Your task to perform on an android device: change the clock display to analog Image 0: 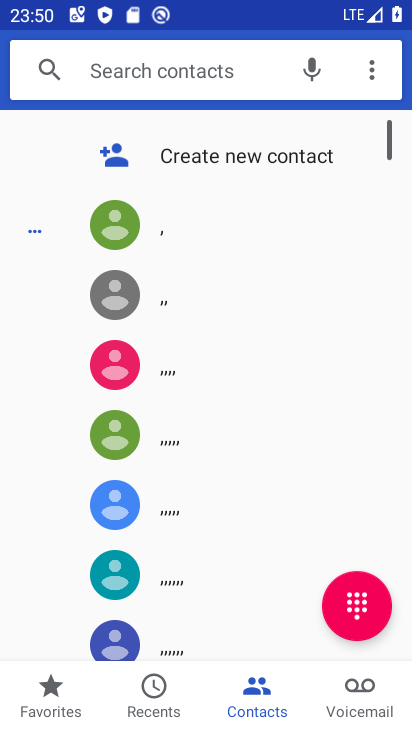
Step 0: press home button
Your task to perform on an android device: change the clock display to analog Image 1: 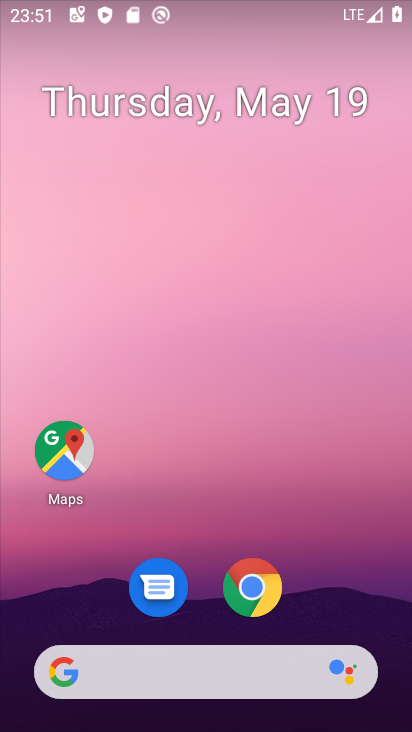
Step 1: drag from (242, 686) to (265, 250)
Your task to perform on an android device: change the clock display to analog Image 2: 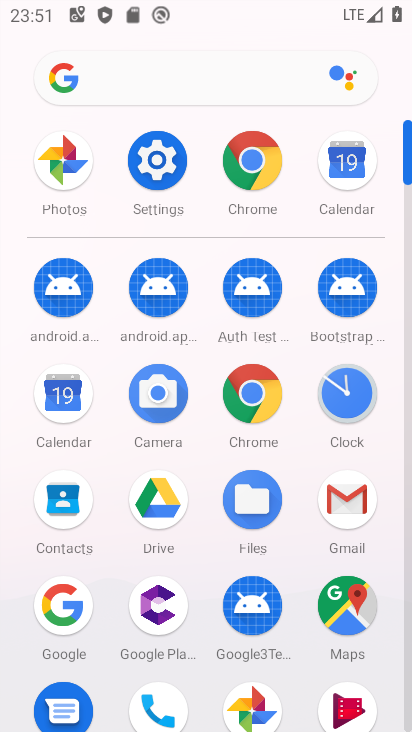
Step 2: click (342, 409)
Your task to perform on an android device: change the clock display to analog Image 3: 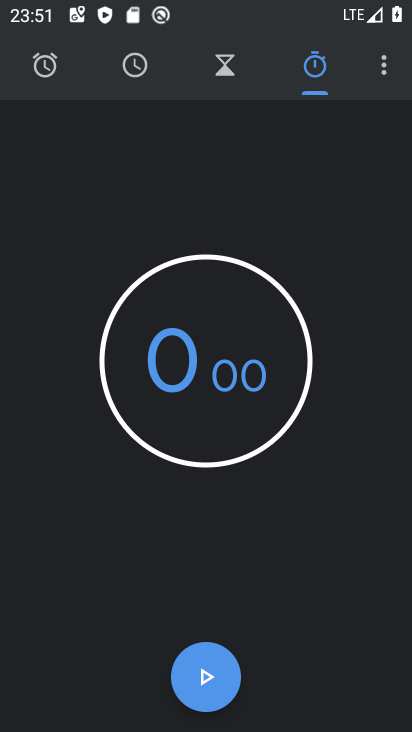
Step 3: click (374, 77)
Your task to perform on an android device: change the clock display to analog Image 4: 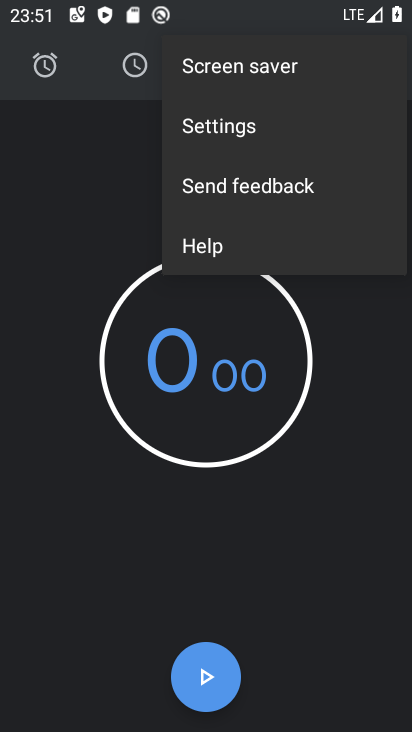
Step 4: click (242, 140)
Your task to perform on an android device: change the clock display to analog Image 5: 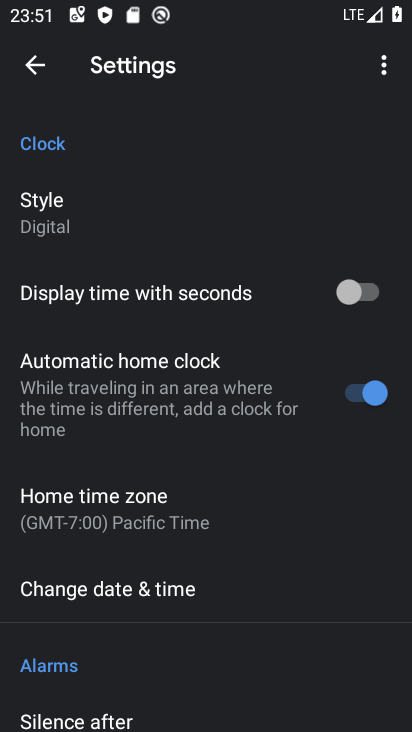
Step 5: click (81, 208)
Your task to perform on an android device: change the clock display to analog Image 6: 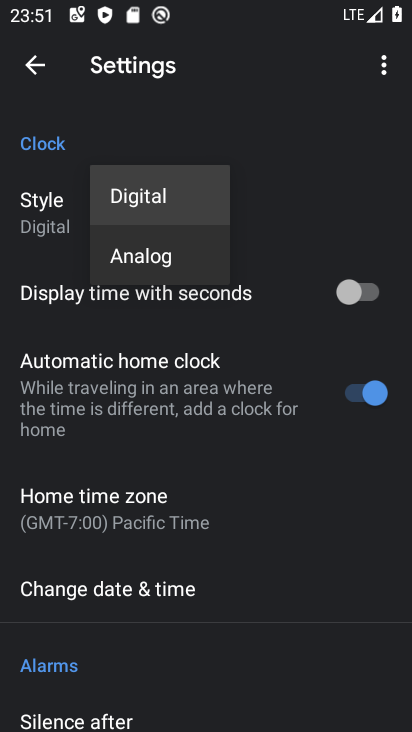
Step 6: click (126, 269)
Your task to perform on an android device: change the clock display to analog Image 7: 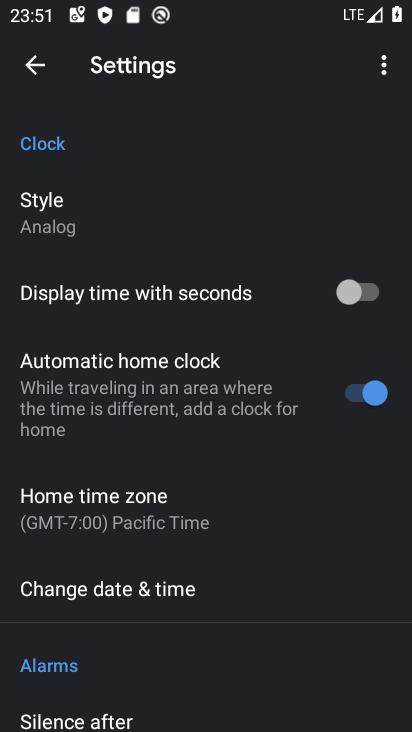
Step 7: task complete